Your task to perform on an android device: change the clock display to show seconds Image 0: 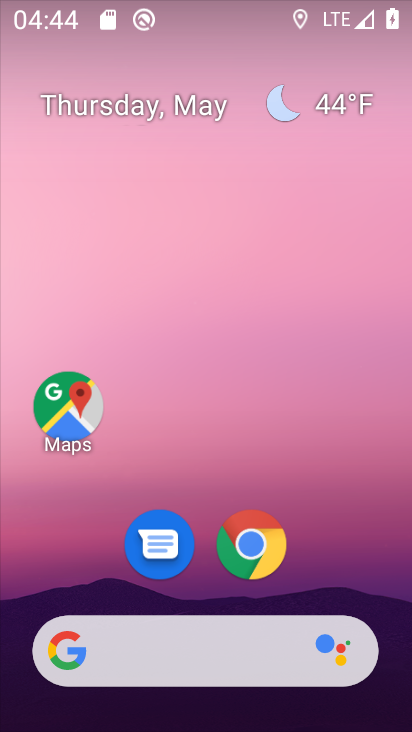
Step 0: drag from (351, 549) to (387, 11)
Your task to perform on an android device: change the clock display to show seconds Image 1: 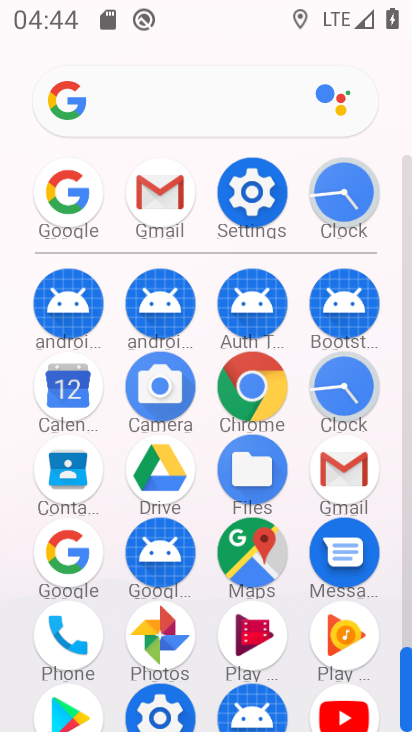
Step 1: click (340, 377)
Your task to perform on an android device: change the clock display to show seconds Image 2: 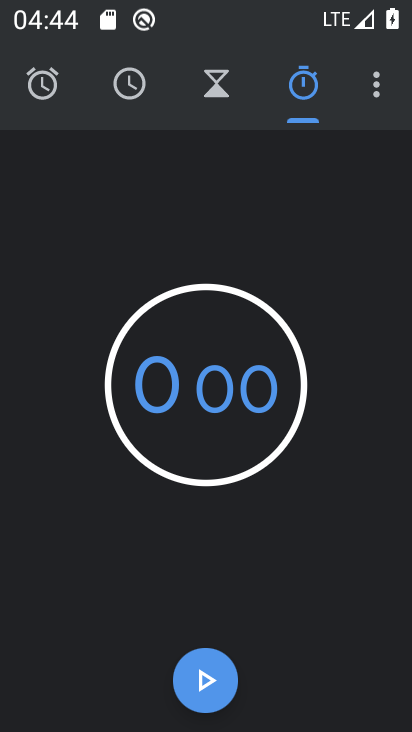
Step 2: click (378, 94)
Your task to perform on an android device: change the clock display to show seconds Image 3: 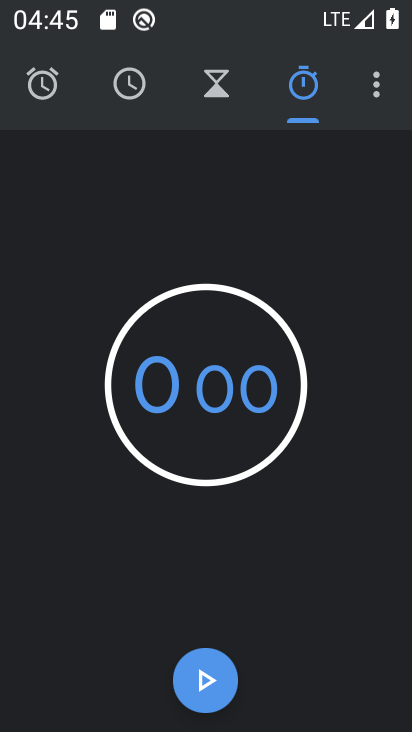
Step 3: click (372, 90)
Your task to perform on an android device: change the clock display to show seconds Image 4: 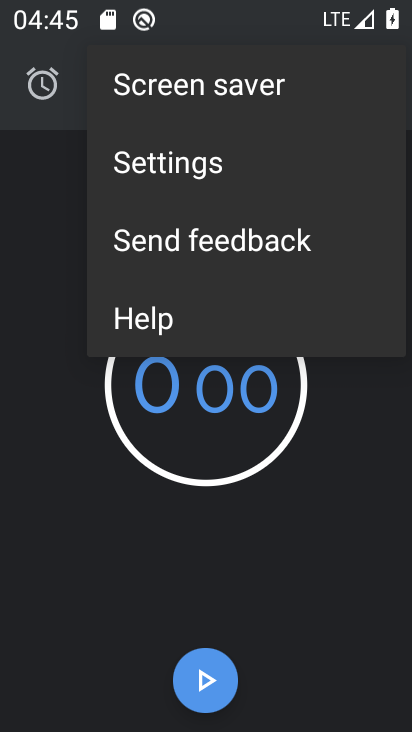
Step 4: click (274, 164)
Your task to perform on an android device: change the clock display to show seconds Image 5: 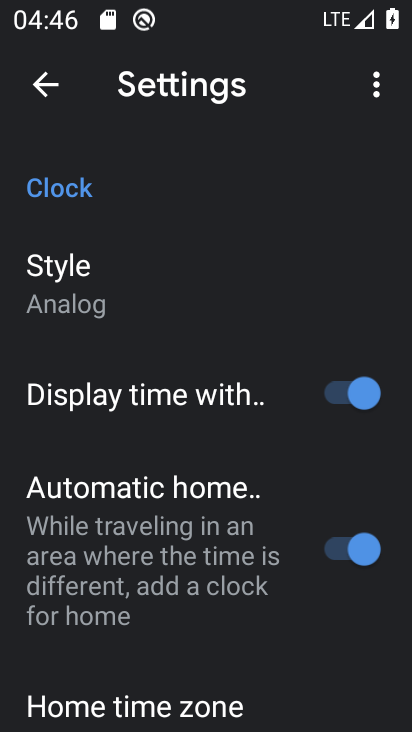
Step 5: task complete